Your task to perform on an android device: Go to location settings Image 0: 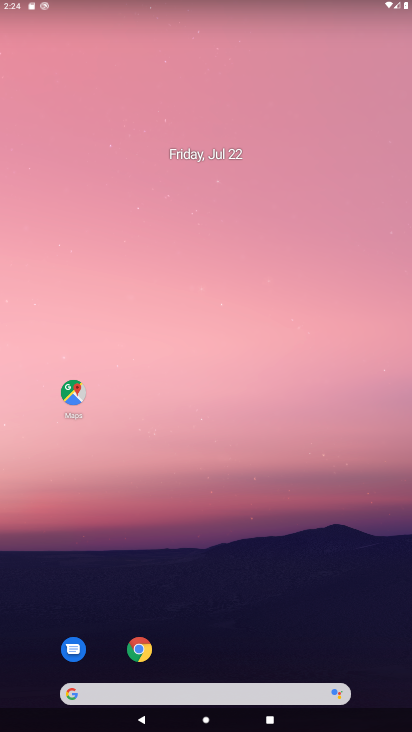
Step 0: drag from (229, 723) to (230, 96)
Your task to perform on an android device: Go to location settings Image 1: 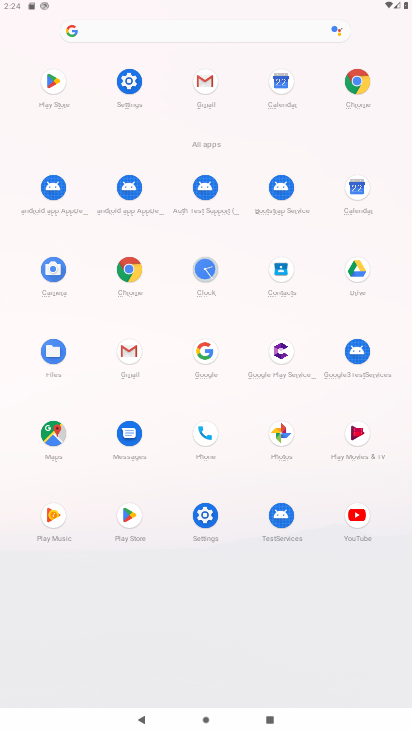
Step 1: click (127, 89)
Your task to perform on an android device: Go to location settings Image 2: 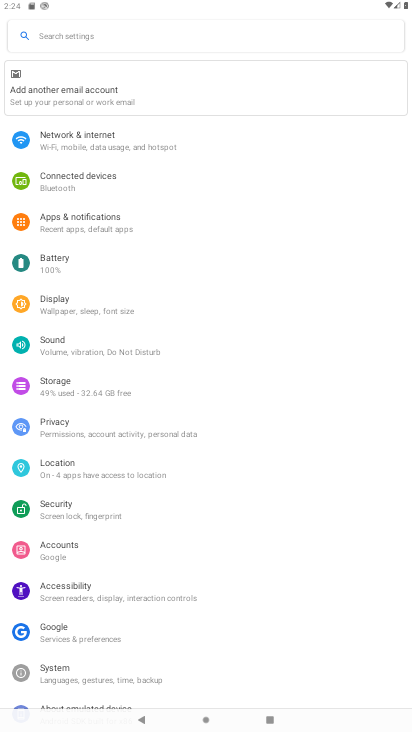
Step 2: click (70, 468)
Your task to perform on an android device: Go to location settings Image 3: 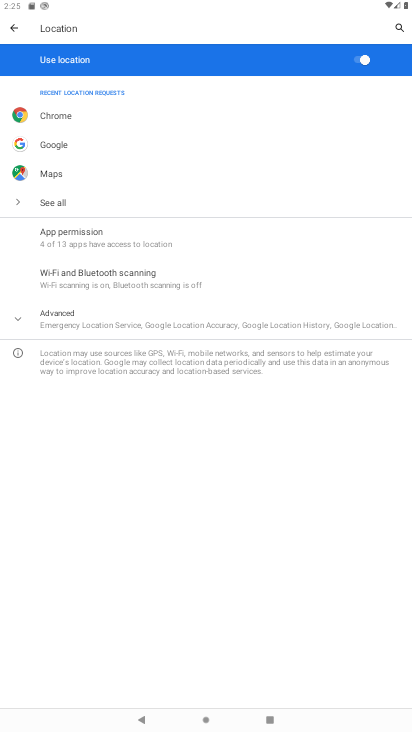
Step 3: task complete